Your task to perform on an android device: open app "AliExpress" (install if not already installed) and enter user name: "orangutan@inbox.com" and password: "Lyons" Image 0: 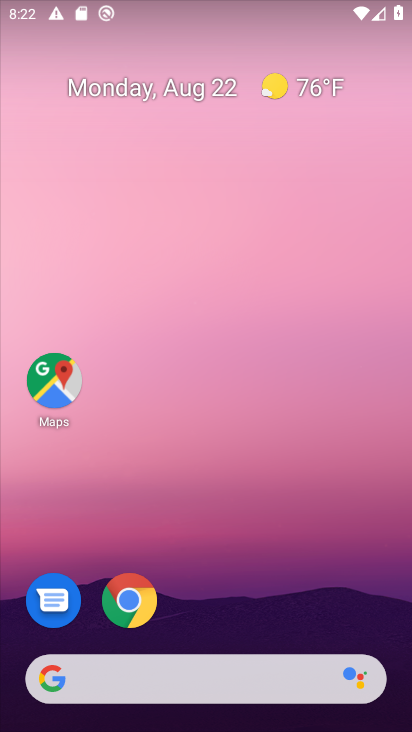
Step 0: drag from (186, 570) to (149, 130)
Your task to perform on an android device: open app "AliExpress" (install if not already installed) and enter user name: "orangutan@inbox.com" and password: "Lyons" Image 1: 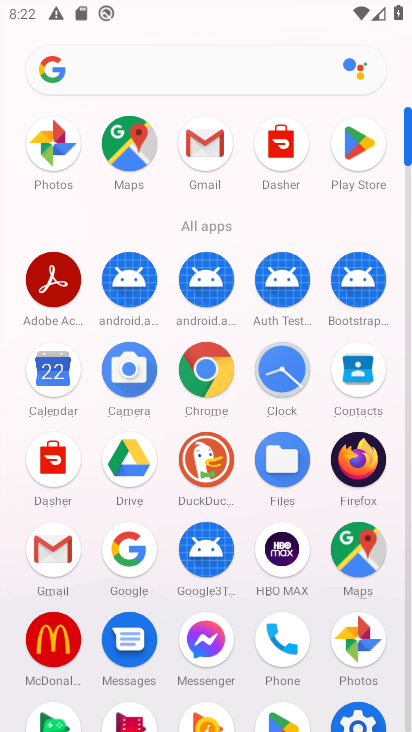
Step 1: click (340, 135)
Your task to perform on an android device: open app "AliExpress" (install if not already installed) and enter user name: "orangutan@inbox.com" and password: "Lyons" Image 2: 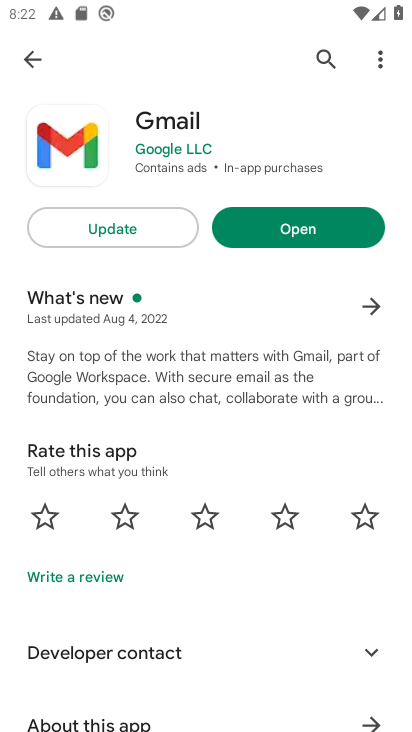
Step 2: click (323, 61)
Your task to perform on an android device: open app "AliExpress" (install if not already installed) and enter user name: "orangutan@inbox.com" and password: "Lyons" Image 3: 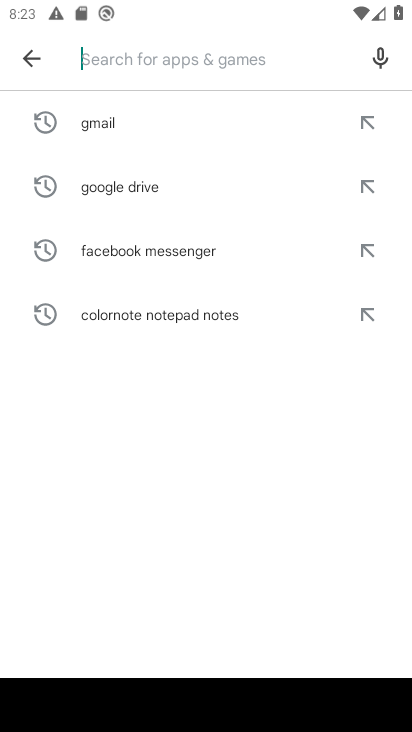
Step 3: type "AliExpress"
Your task to perform on an android device: open app "AliExpress" (install if not already installed) and enter user name: "orangutan@inbox.com" and password: "Lyons" Image 4: 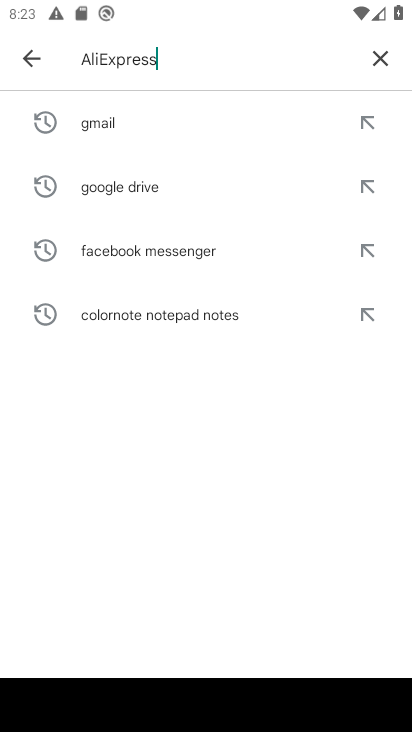
Step 4: type ""
Your task to perform on an android device: open app "AliExpress" (install if not already installed) and enter user name: "orangutan@inbox.com" and password: "Lyons" Image 5: 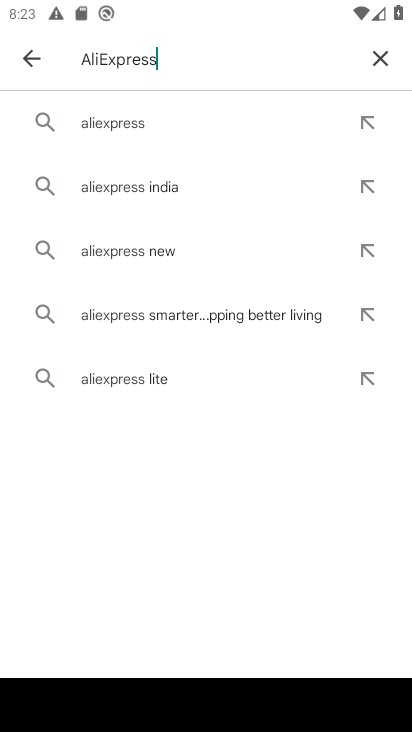
Step 5: click (150, 131)
Your task to perform on an android device: open app "AliExpress" (install if not already installed) and enter user name: "orangutan@inbox.com" and password: "Lyons" Image 6: 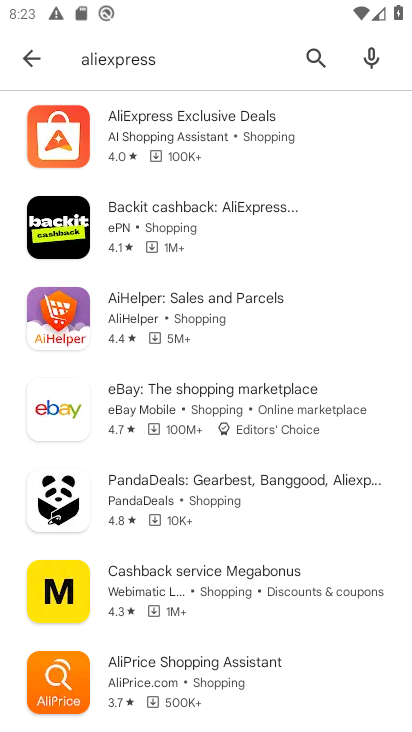
Step 6: click (150, 131)
Your task to perform on an android device: open app "AliExpress" (install if not already installed) and enter user name: "orangutan@inbox.com" and password: "Lyons" Image 7: 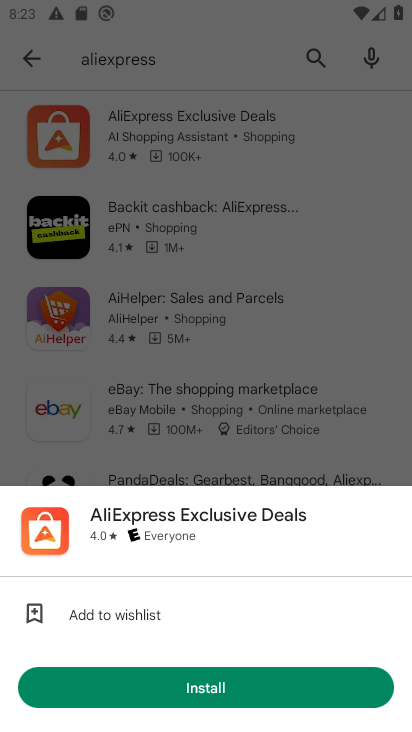
Step 7: click (241, 692)
Your task to perform on an android device: open app "AliExpress" (install if not already installed) and enter user name: "orangutan@inbox.com" and password: "Lyons" Image 8: 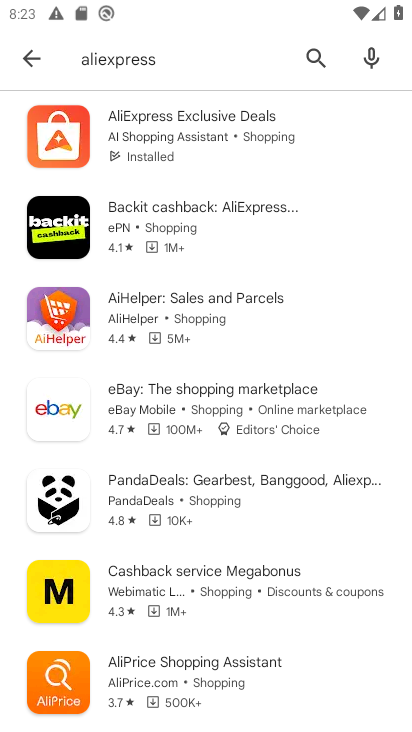
Step 8: click (215, 137)
Your task to perform on an android device: open app "AliExpress" (install if not already installed) and enter user name: "orangutan@inbox.com" and password: "Lyons" Image 9: 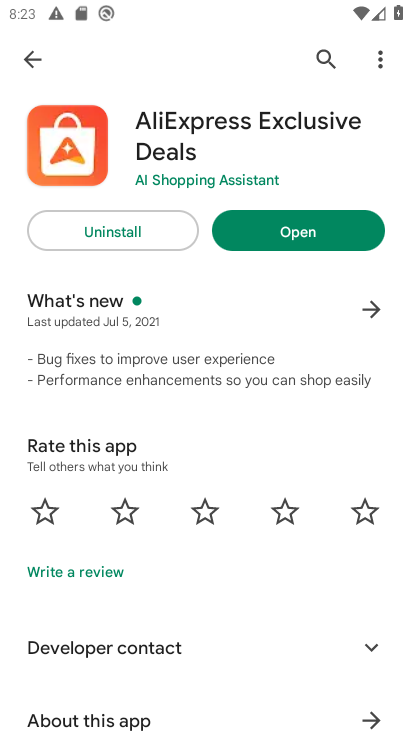
Step 9: click (304, 238)
Your task to perform on an android device: open app "AliExpress" (install if not already installed) and enter user name: "orangutan@inbox.com" and password: "Lyons" Image 10: 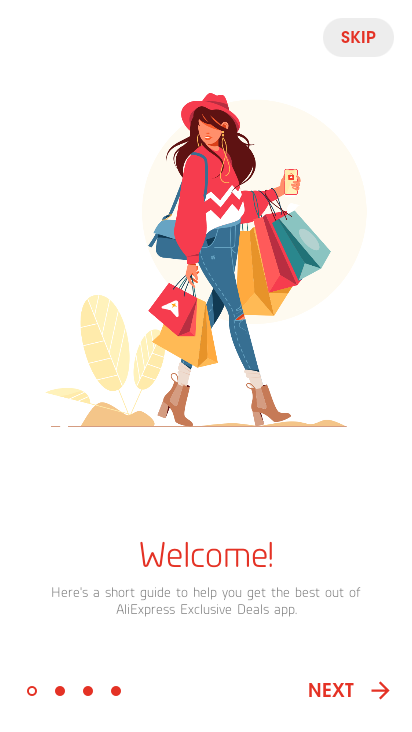
Step 10: task complete